Your task to perform on an android device: snooze an email in the gmail app Image 0: 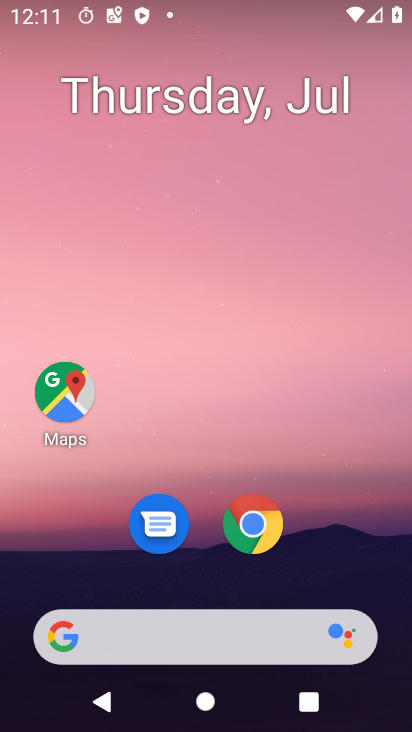
Step 0: drag from (218, 597) to (313, 101)
Your task to perform on an android device: snooze an email in the gmail app Image 1: 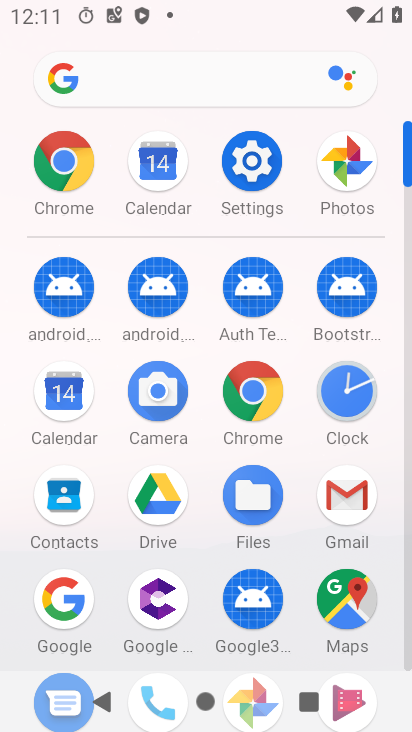
Step 1: click (345, 509)
Your task to perform on an android device: snooze an email in the gmail app Image 2: 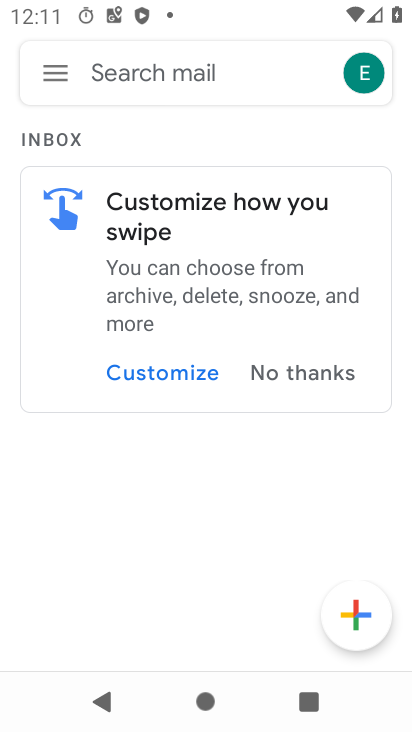
Step 2: click (57, 82)
Your task to perform on an android device: snooze an email in the gmail app Image 3: 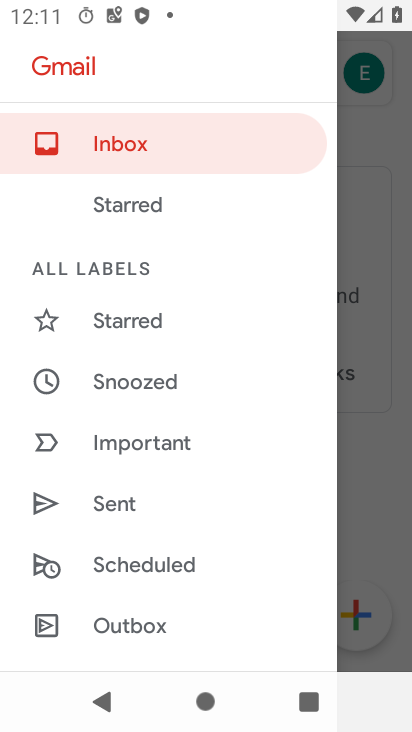
Step 3: drag from (187, 582) to (280, 79)
Your task to perform on an android device: snooze an email in the gmail app Image 4: 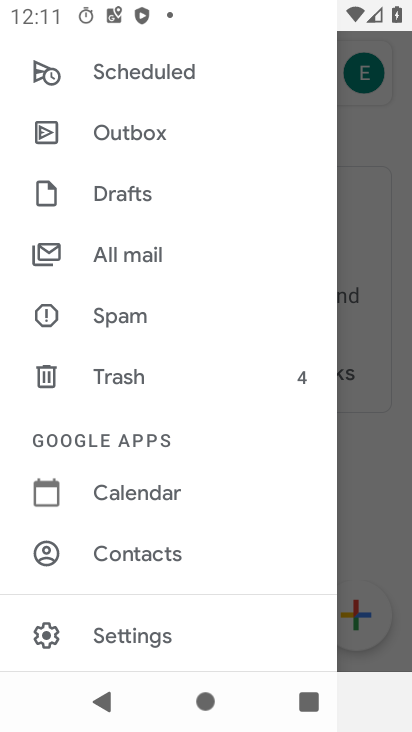
Step 4: click (152, 263)
Your task to perform on an android device: snooze an email in the gmail app Image 5: 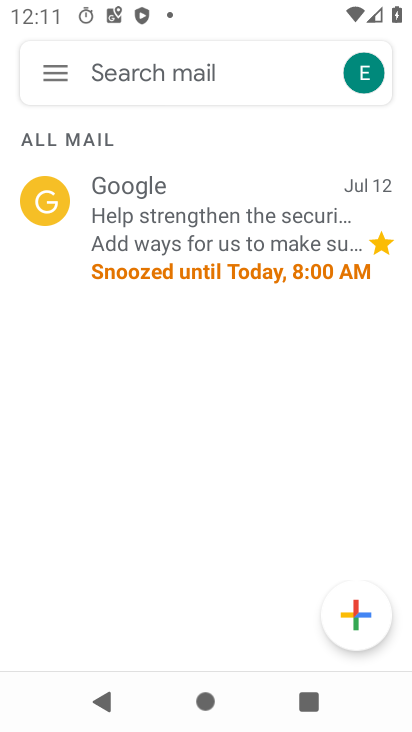
Step 5: click (57, 196)
Your task to perform on an android device: snooze an email in the gmail app Image 6: 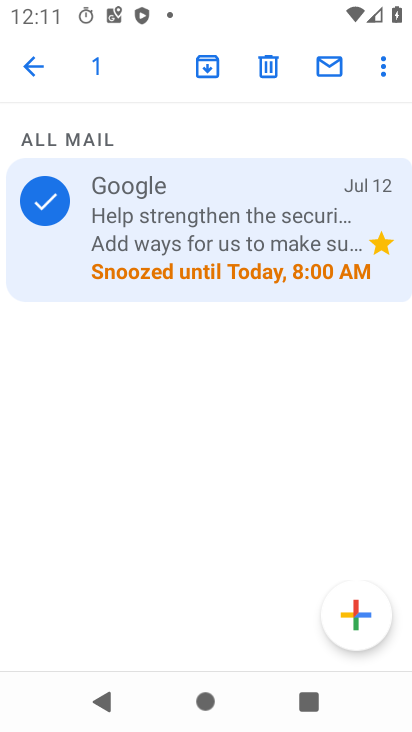
Step 6: click (385, 66)
Your task to perform on an android device: snooze an email in the gmail app Image 7: 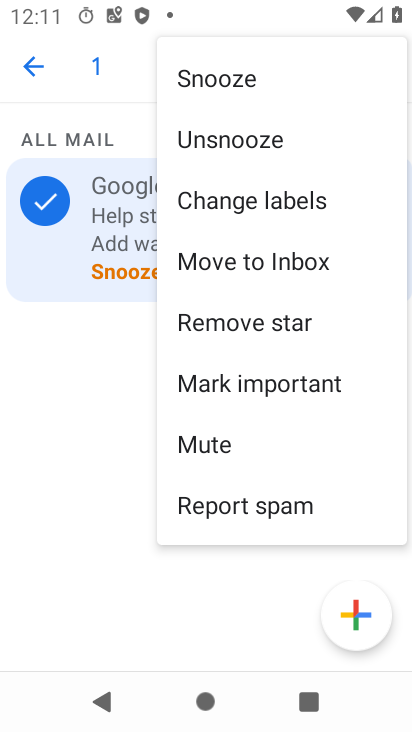
Step 7: click (231, 88)
Your task to perform on an android device: snooze an email in the gmail app Image 8: 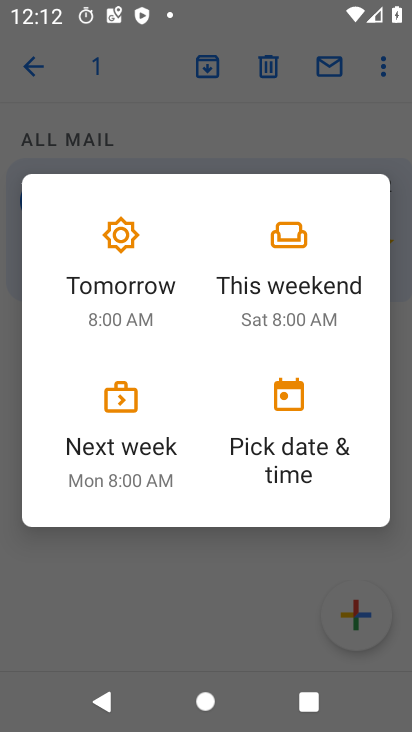
Step 8: click (252, 313)
Your task to perform on an android device: snooze an email in the gmail app Image 9: 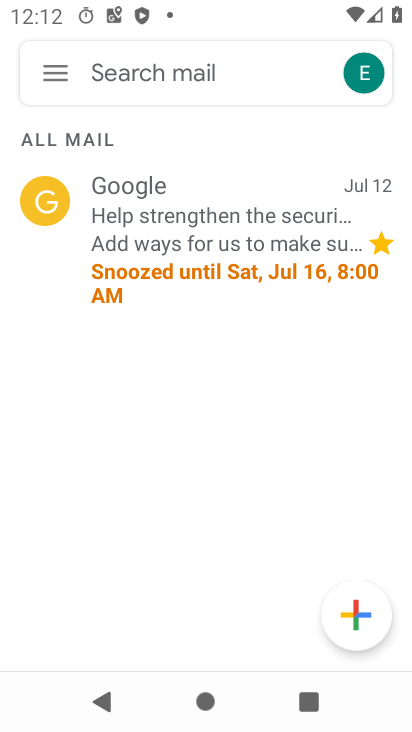
Step 9: task complete